Your task to perform on an android device: What's the weather going to be tomorrow? Image 0: 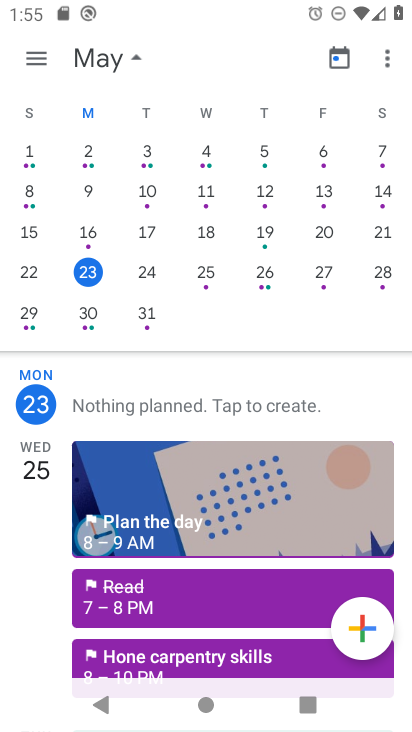
Step 0: press home button
Your task to perform on an android device: What's the weather going to be tomorrow? Image 1: 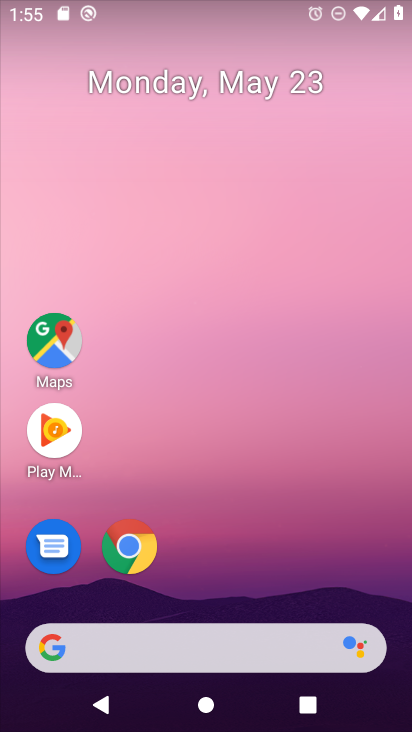
Step 1: drag from (253, 638) to (232, 129)
Your task to perform on an android device: What's the weather going to be tomorrow? Image 2: 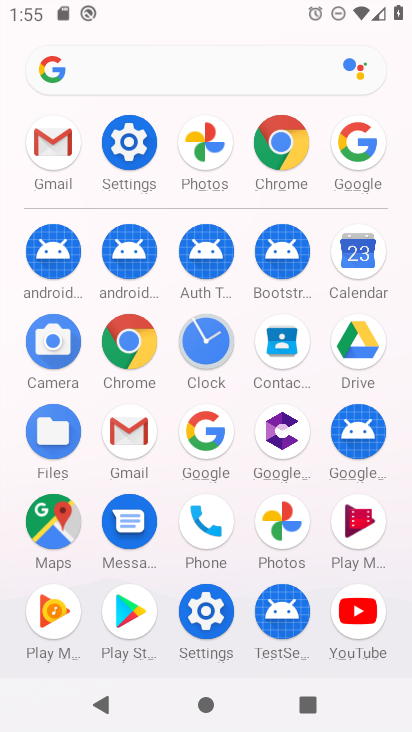
Step 2: click (217, 450)
Your task to perform on an android device: What's the weather going to be tomorrow? Image 3: 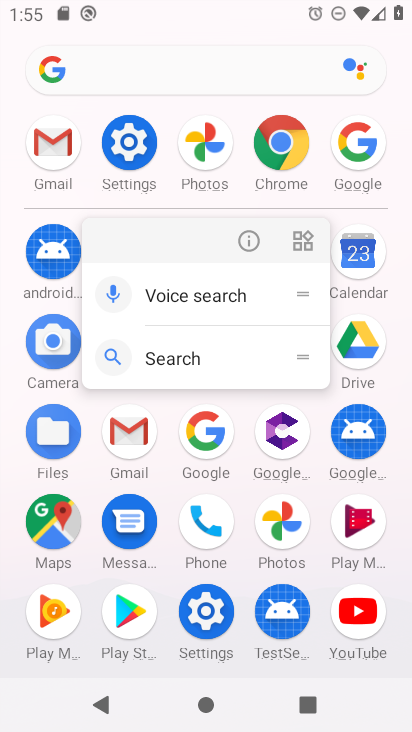
Step 3: click (213, 442)
Your task to perform on an android device: What's the weather going to be tomorrow? Image 4: 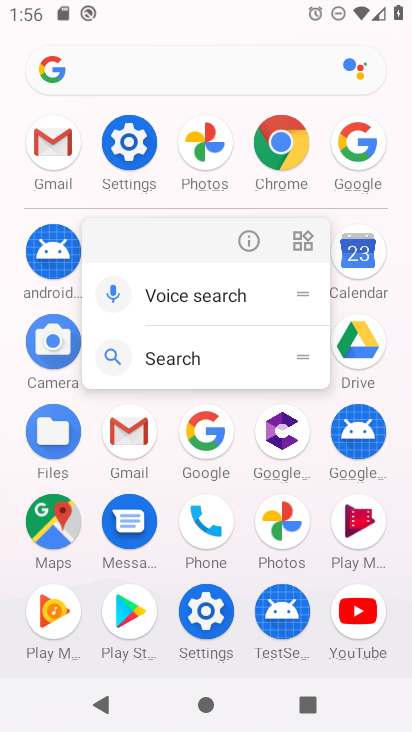
Step 4: click (212, 438)
Your task to perform on an android device: What's the weather going to be tomorrow? Image 5: 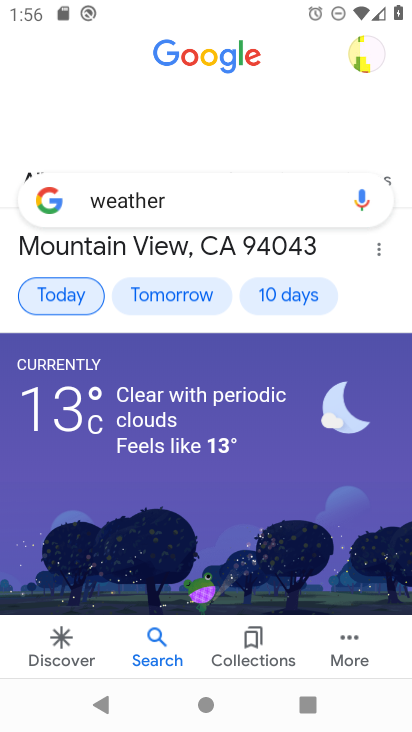
Step 5: click (178, 281)
Your task to perform on an android device: What's the weather going to be tomorrow? Image 6: 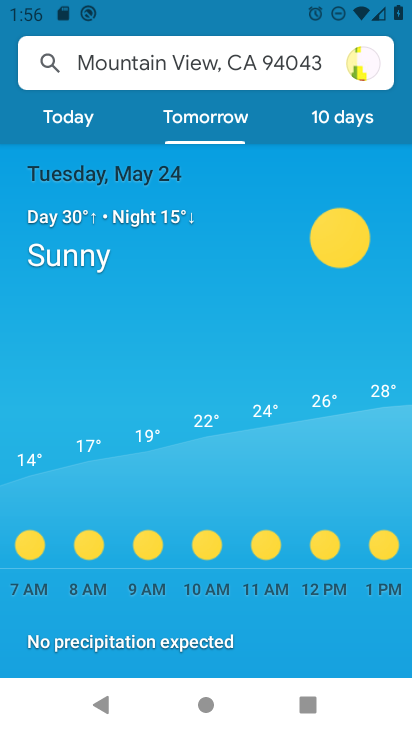
Step 6: task complete